Your task to perform on an android device: Open sound settings Image 0: 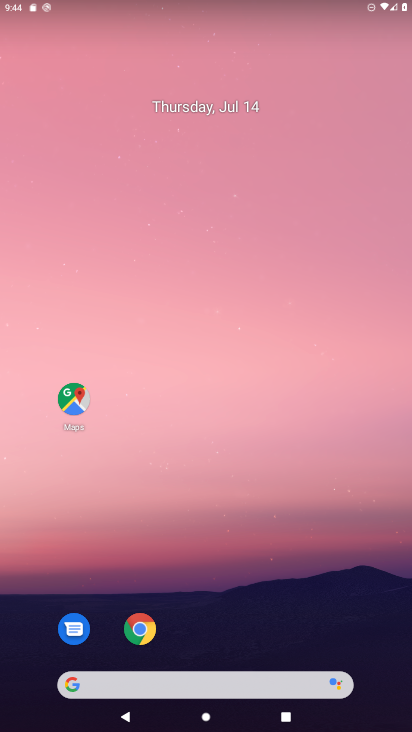
Step 0: drag from (235, 640) to (251, 53)
Your task to perform on an android device: Open sound settings Image 1: 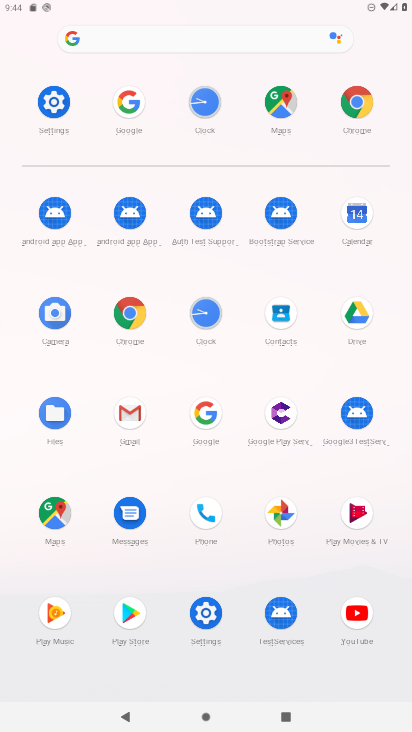
Step 1: click (208, 599)
Your task to perform on an android device: Open sound settings Image 2: 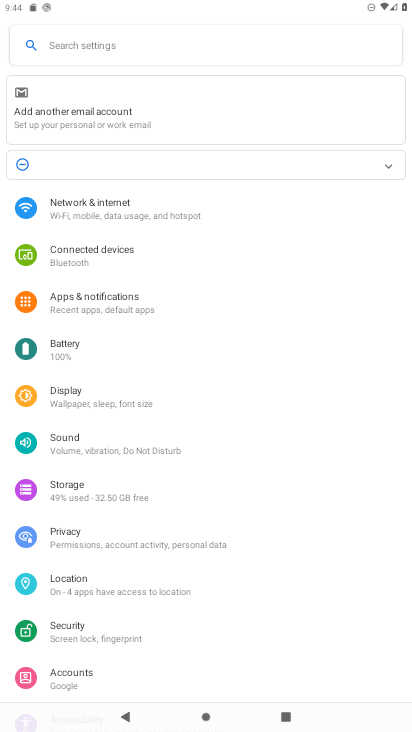
Step 2: click (64, 441)
Your task to perform on an android device: Open sound settings Image 3: 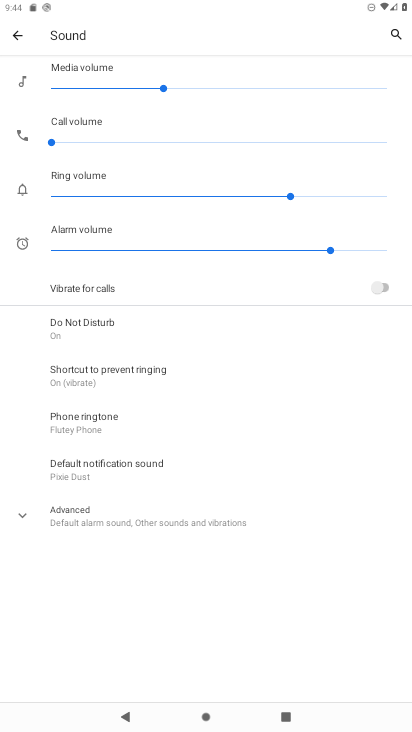
Step 3: task complete